Your task to perform on an android device: add a contact Image 0: 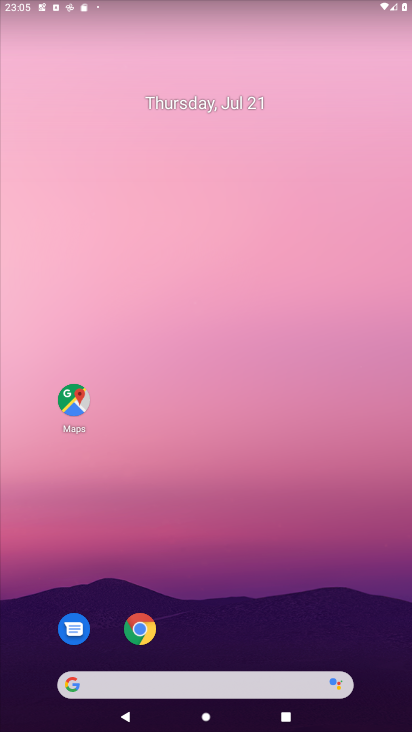
Step 0: drag from (263, 573) to (233, 161)
Your task to perform on an android device: add a contact Image 1: 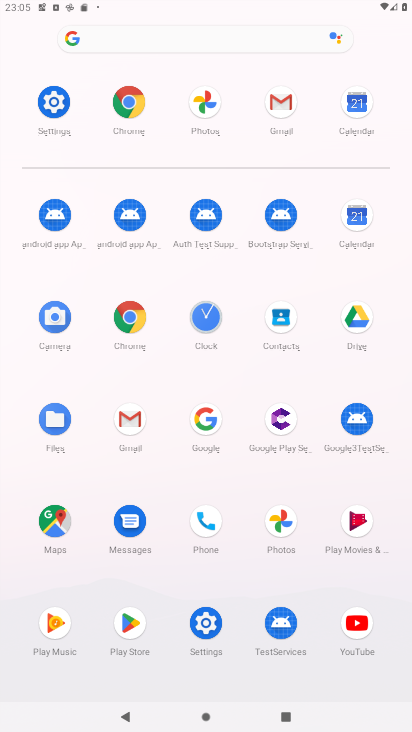
Step 1: click (272, 331)
Your task to perform on an android device: add a contact Image 2: 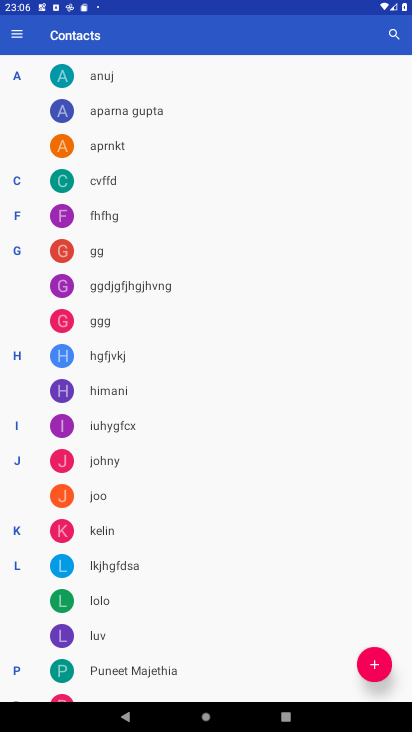
Step 2: click (367, 668)
Your task to perform on an android device: add a contact Image 3: 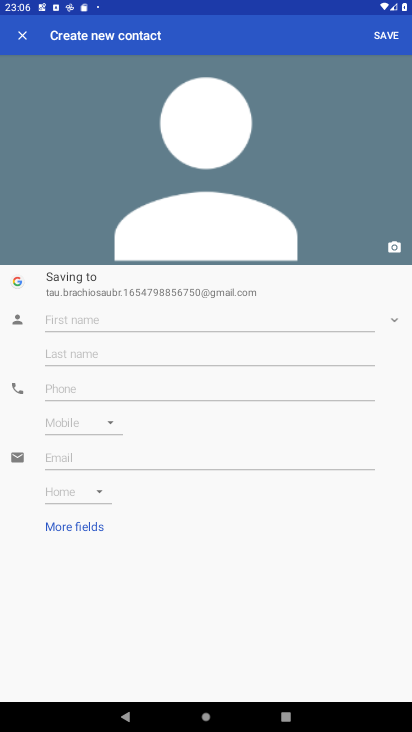
Step 3: click (154, 310)
Your task to perform on an android device: add a contact Image 4: 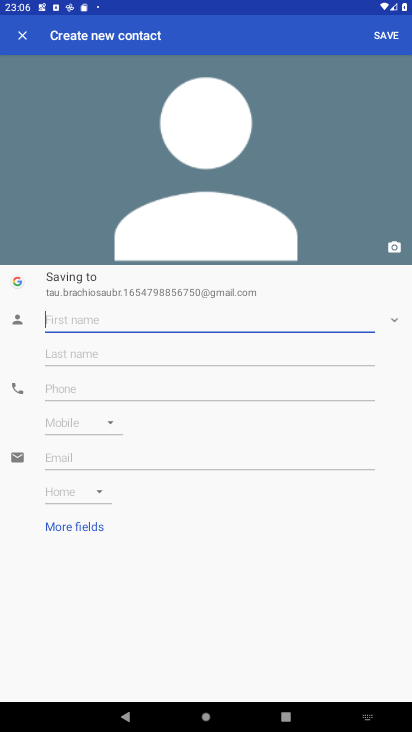
Step 4: type "ddzgfg"
Your task to perform on an android device: add a contact Image 5: 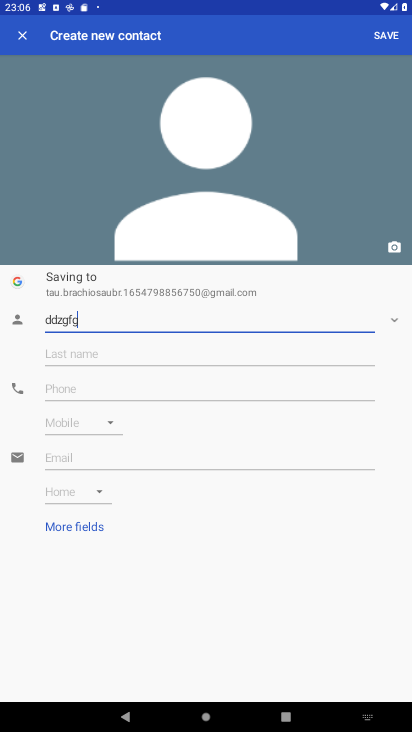
Step 5: type ""
Your task to perform on an android device: add a contact Image 6: 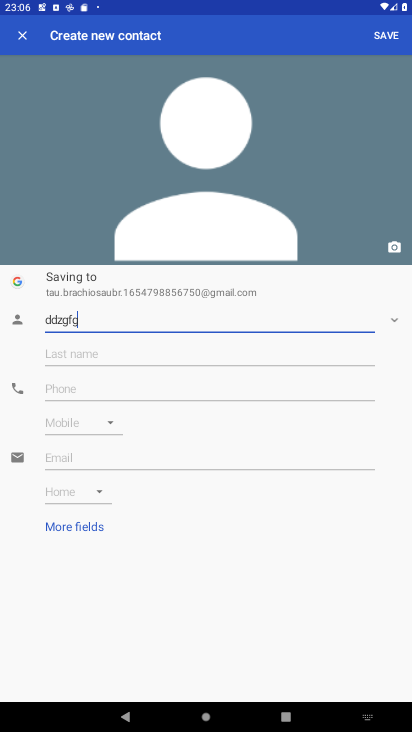
Step 6: click (387, 30)
Your task to perform on an android device: add a contact Image 7: 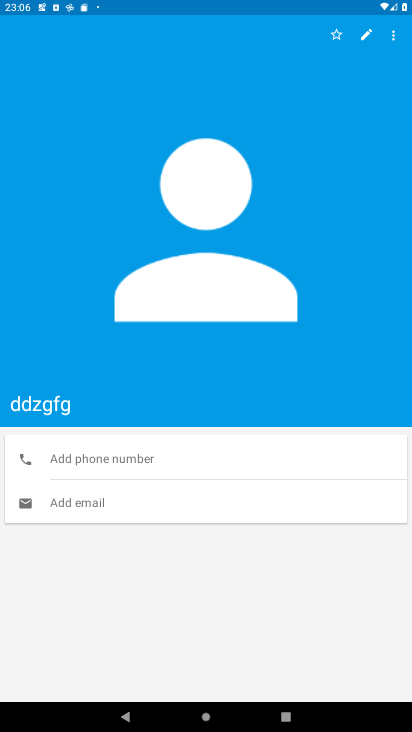
Step 7: task complete